Your task to perform on an android device: read, delete, or share a saved page in the chrome app Image 0: 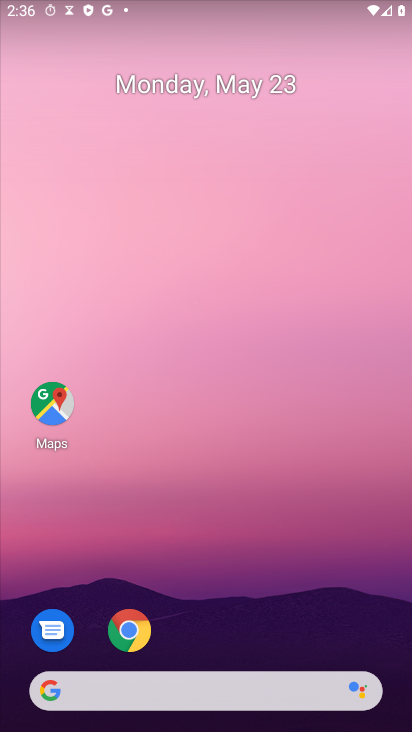
Step 0: drag from (277, 418) to (168, 8)
Your task to perform on an android device: read, delete, or share a saved page in the chrome app Image 1: 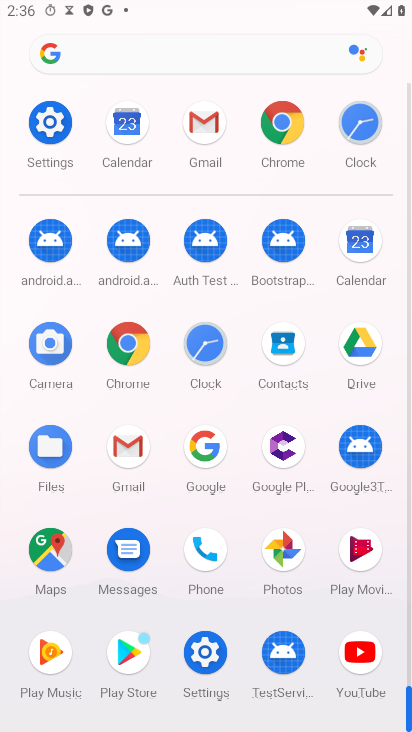
Step 1: click (286, 136)
Your task to perform on an android device: read, delete, or share a saved page in the chrome app Image 2: 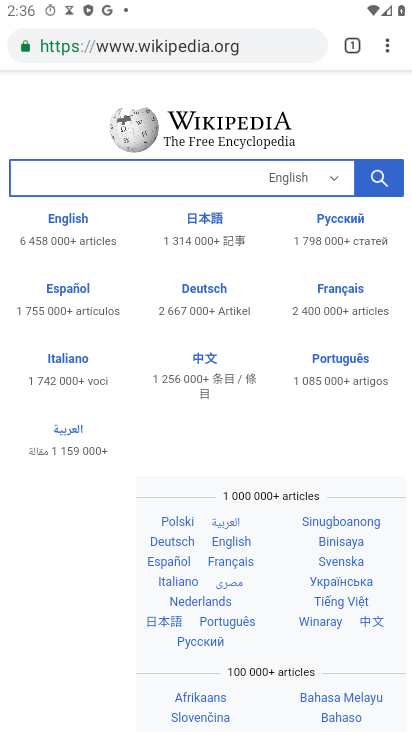
Step 2: task complete